Your task to perform on an android device: Clear the cart on walmart.com. Search for "sony triple a" on walmart.com, select the first entry, and add it to the cart. Image 0: 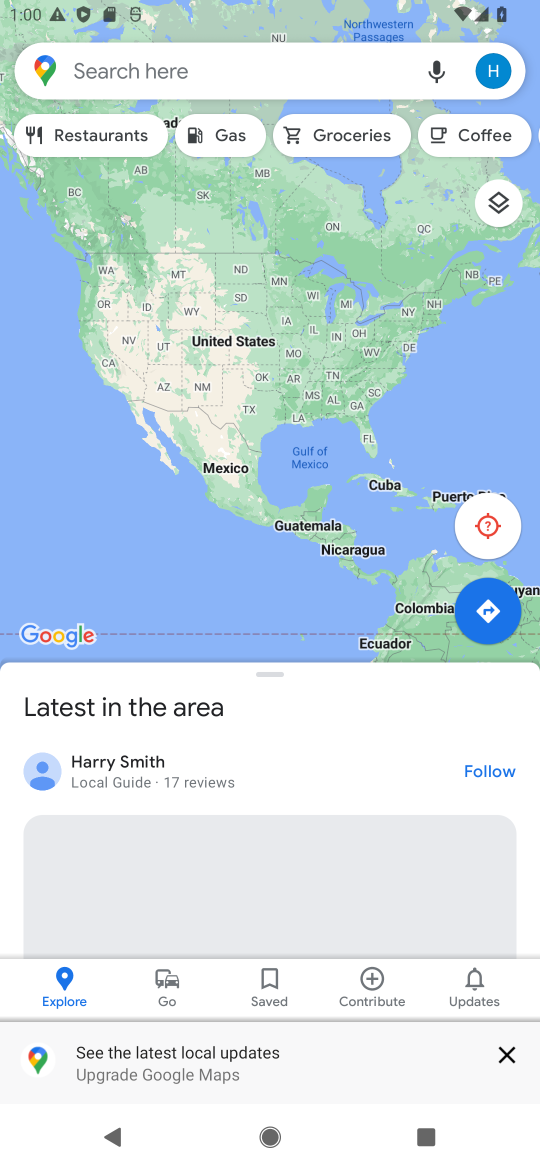
Step 0: press home button
Your task to perform on an android device: Clear the cart on walmart.com. Search for "sony triple a" on walmart.com, select the first entry, and add it to the cart. Image 1: 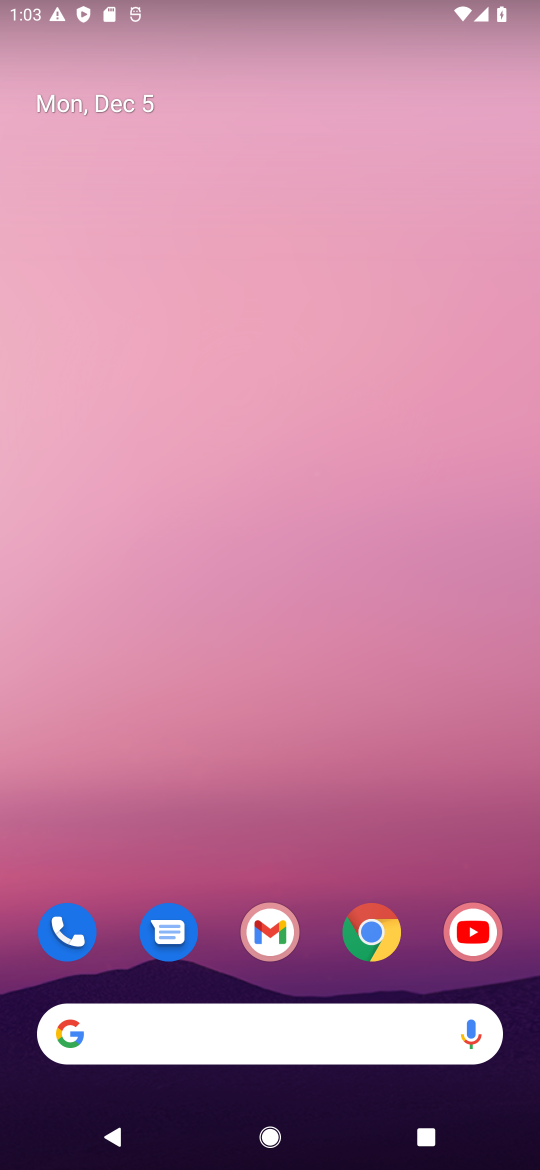
Step 1: task complete